Your task to perform on an android device: open app "Microsoft Outlook" (install if not already installed) Image 0: 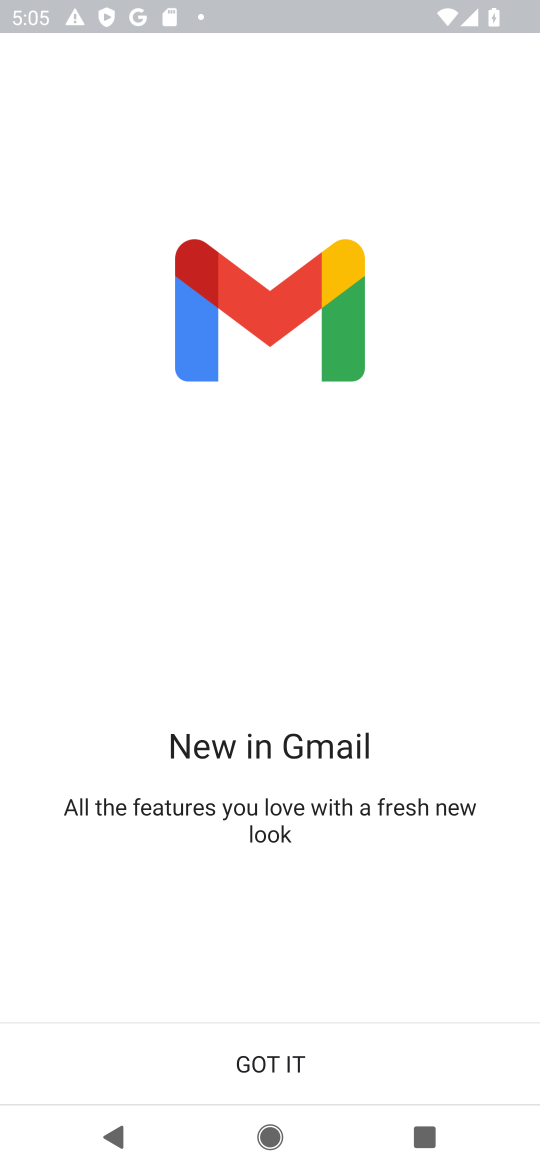
Step 0: press home button
Your task to perform on an android device: open app "Microsoft Outlook" (install if not already installed) Image 1: 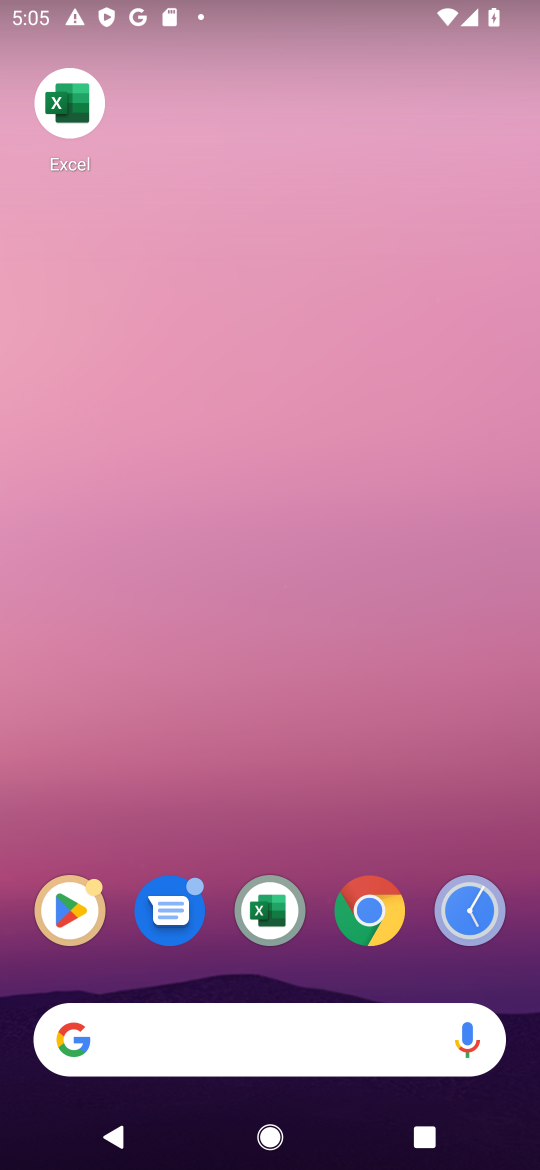
Step 1: drag from (305, 994) to (271, 196)
Your task to perform on an android device: open app "Microsoft Outlook" (install if not already installed) Image 2: 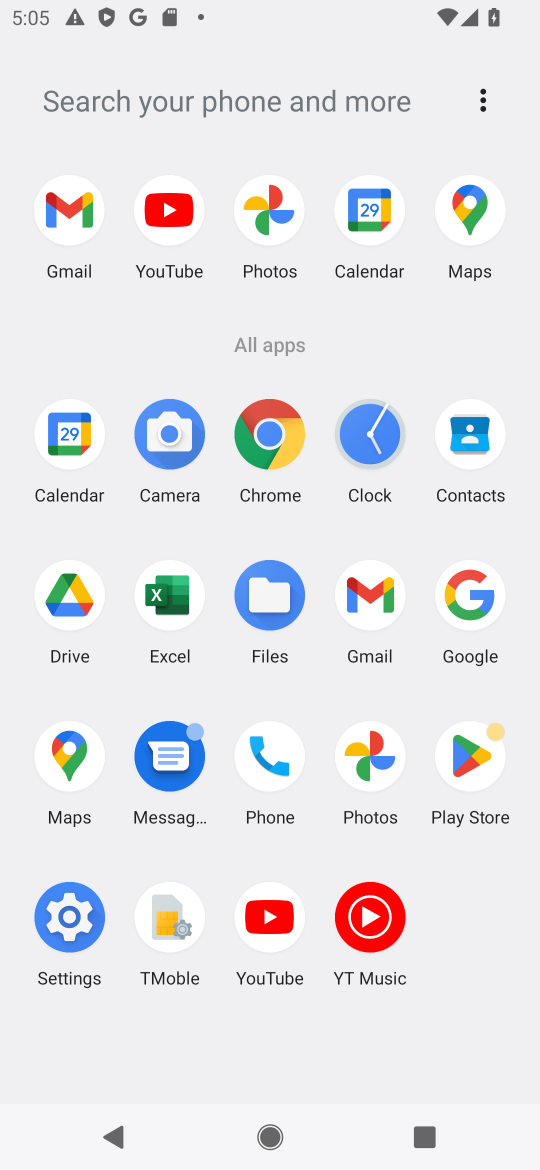
Step 2: click (458, 756)
Your task to perform on an android device: open app "Microsoft Outlook" (install if not already installed) Image 3: 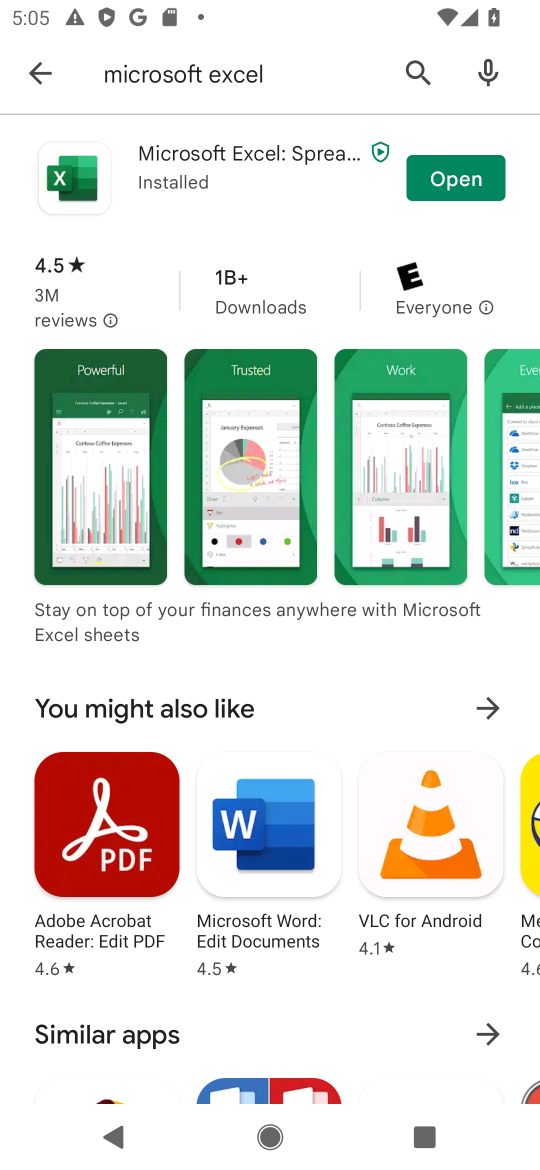
Step 3: click (410, 66)
Your task to perform on an android device: open app "Microsoft Outlook" (install if not already installed) Image 4: 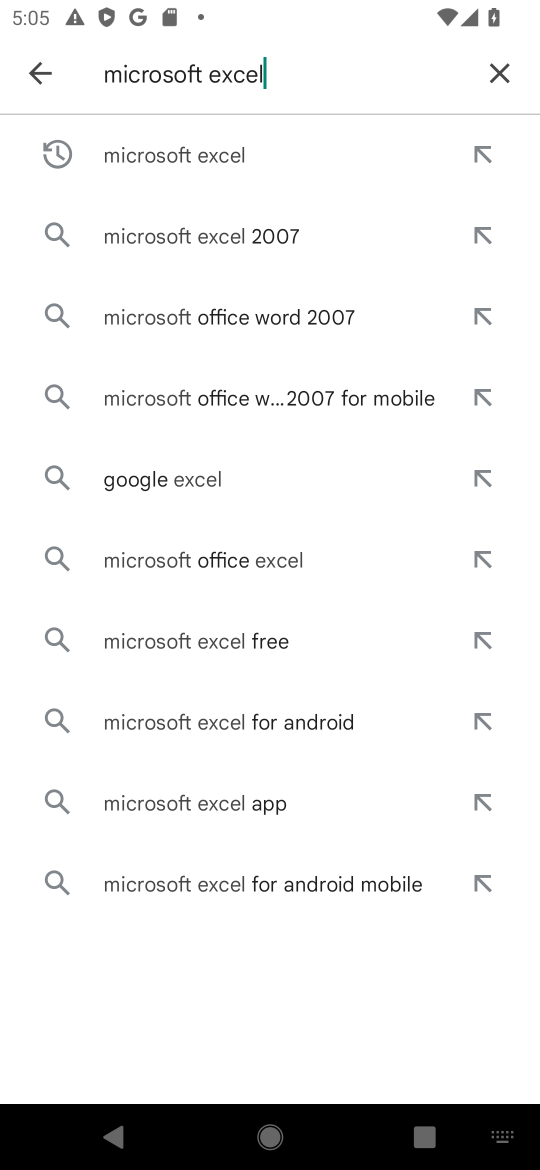
Step 4: click (500, 60)
Your task to perform on an android device: open app "Microsoft Outlook" (install if not already installed) Image 5: 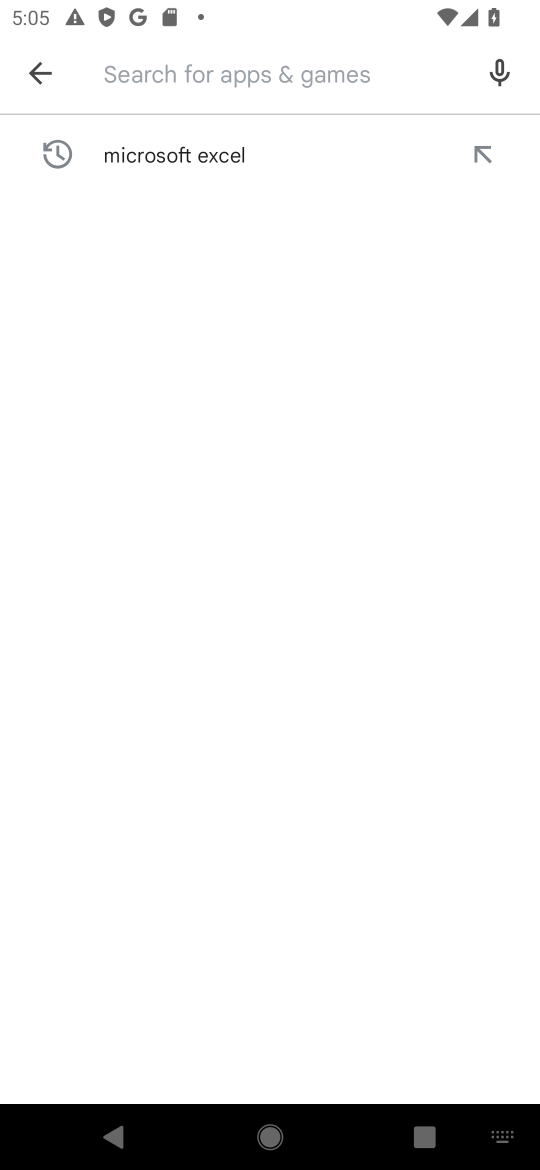
Step 5: type "Microsoft Outlook"
Your task to perform on an android device: open app "Microsoft Outlook" (install if not already installed) Image 6: 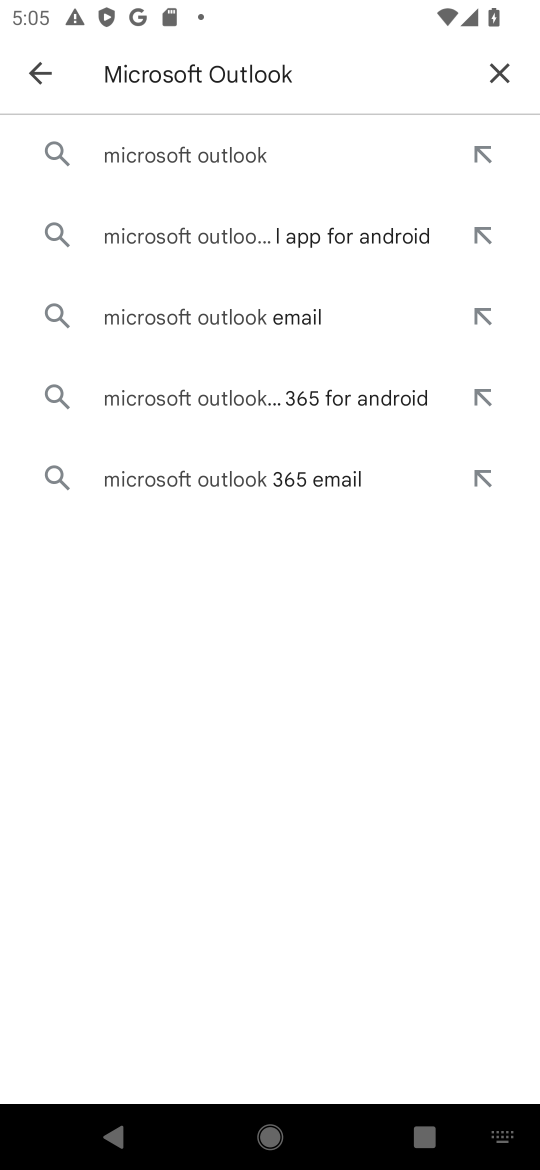
Step 6: click (206, 153)
Your task to perform on an android device: open app "Microsoft Outlook" (install if not already installed) Image 7: 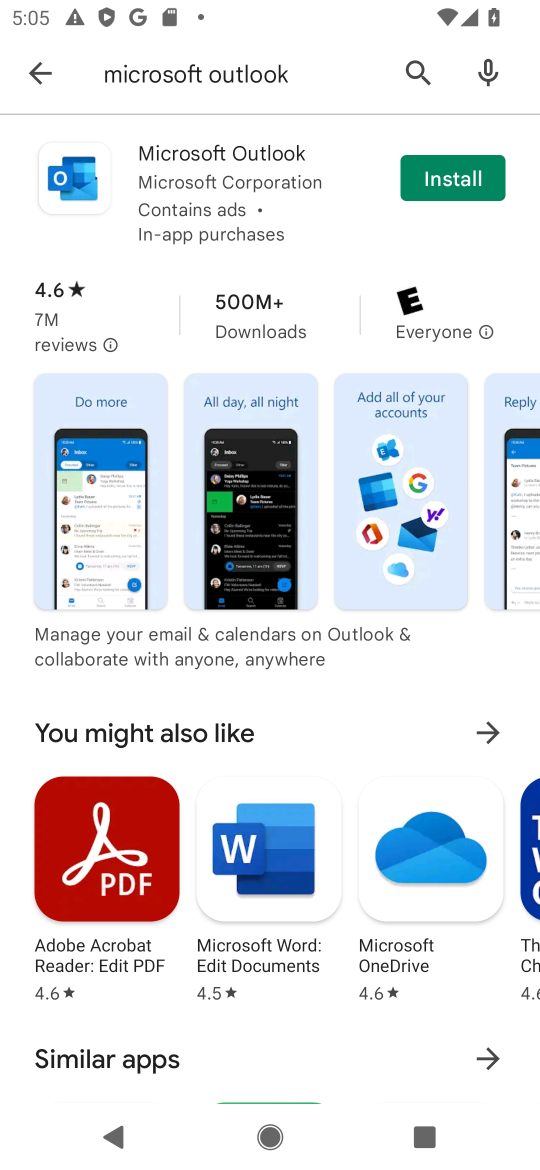
Step 7: click (434, 171)
Your task to perform on an android device: open app "Microsoft Outlook" (install if not already installed) Image 8: 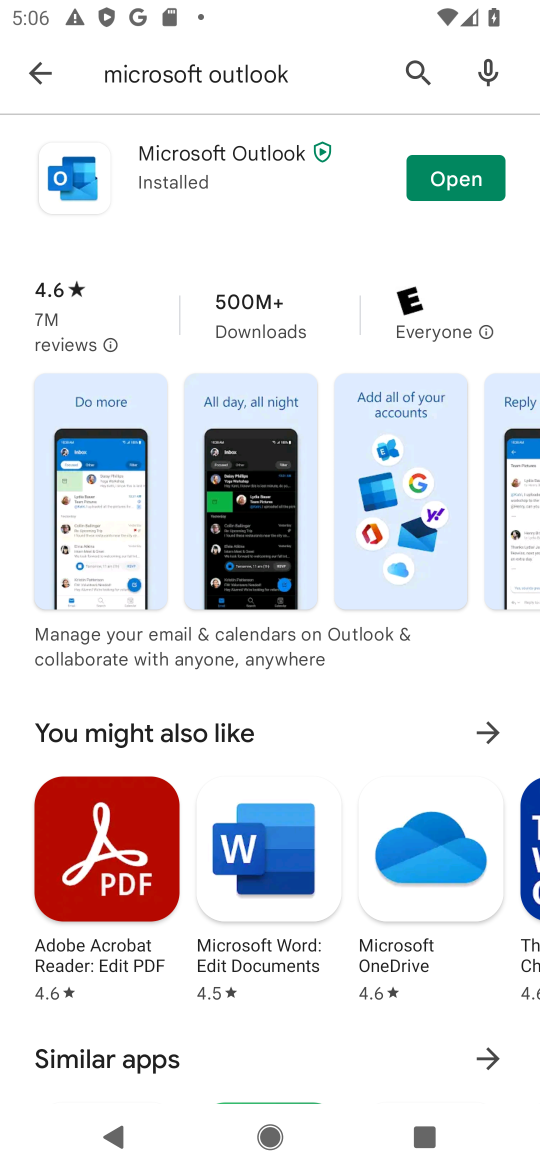
Step 8: click (450, 173)
Your task to perform on an android device: open app "Microsoft Outlook" (install if not already installed) Image 9: 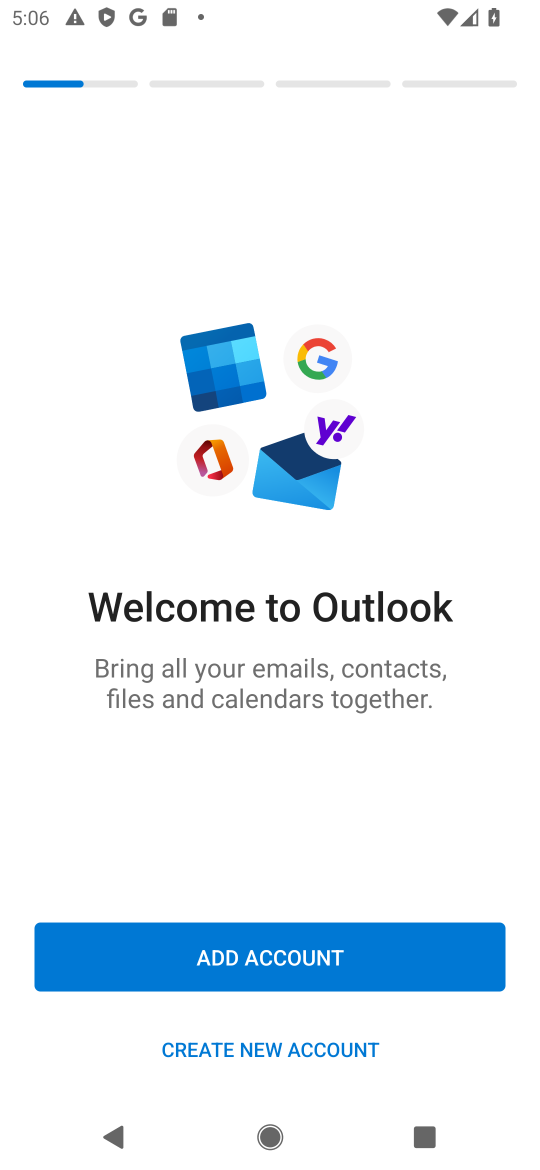
Step 9: task complete